Your task to perform on an android device: Open settings Image 0: 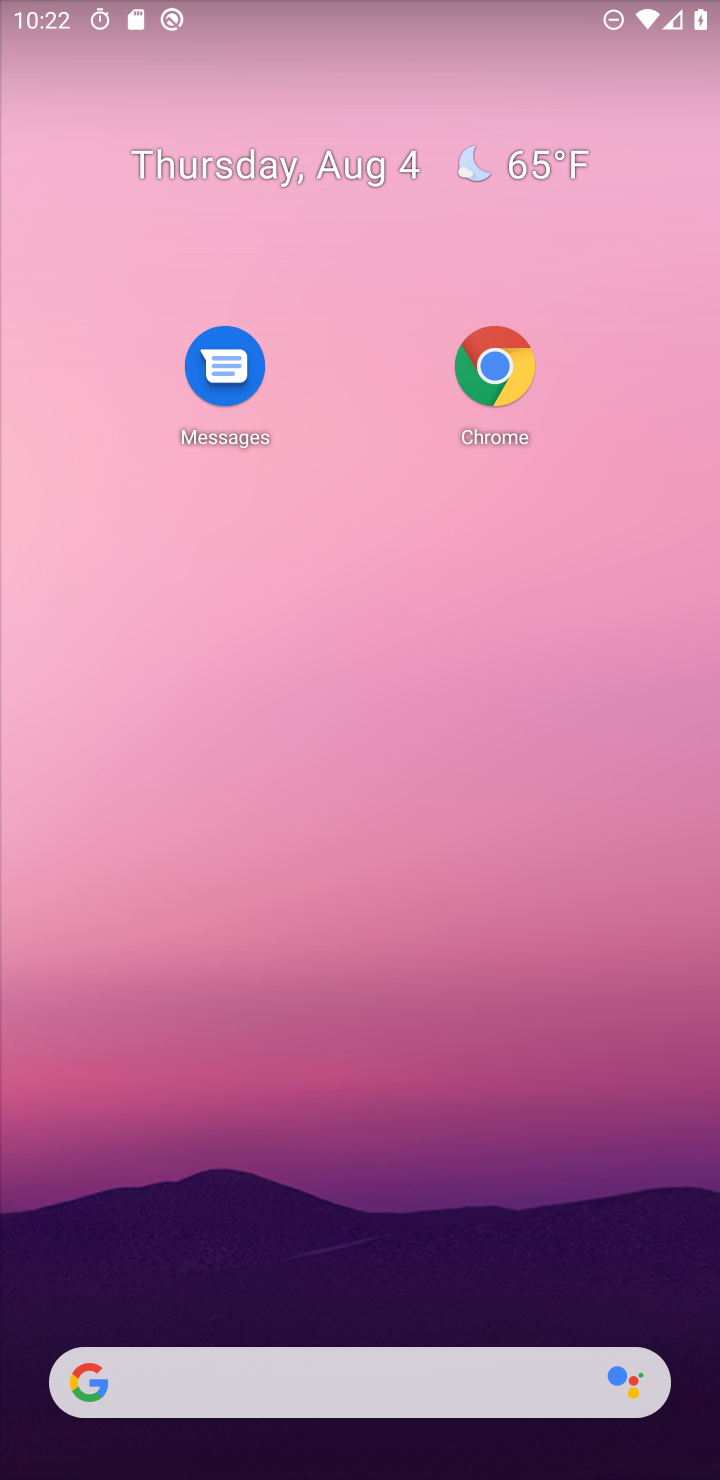
Step 0: press home button
Your task to perform on an android device: Open settings Image 1: 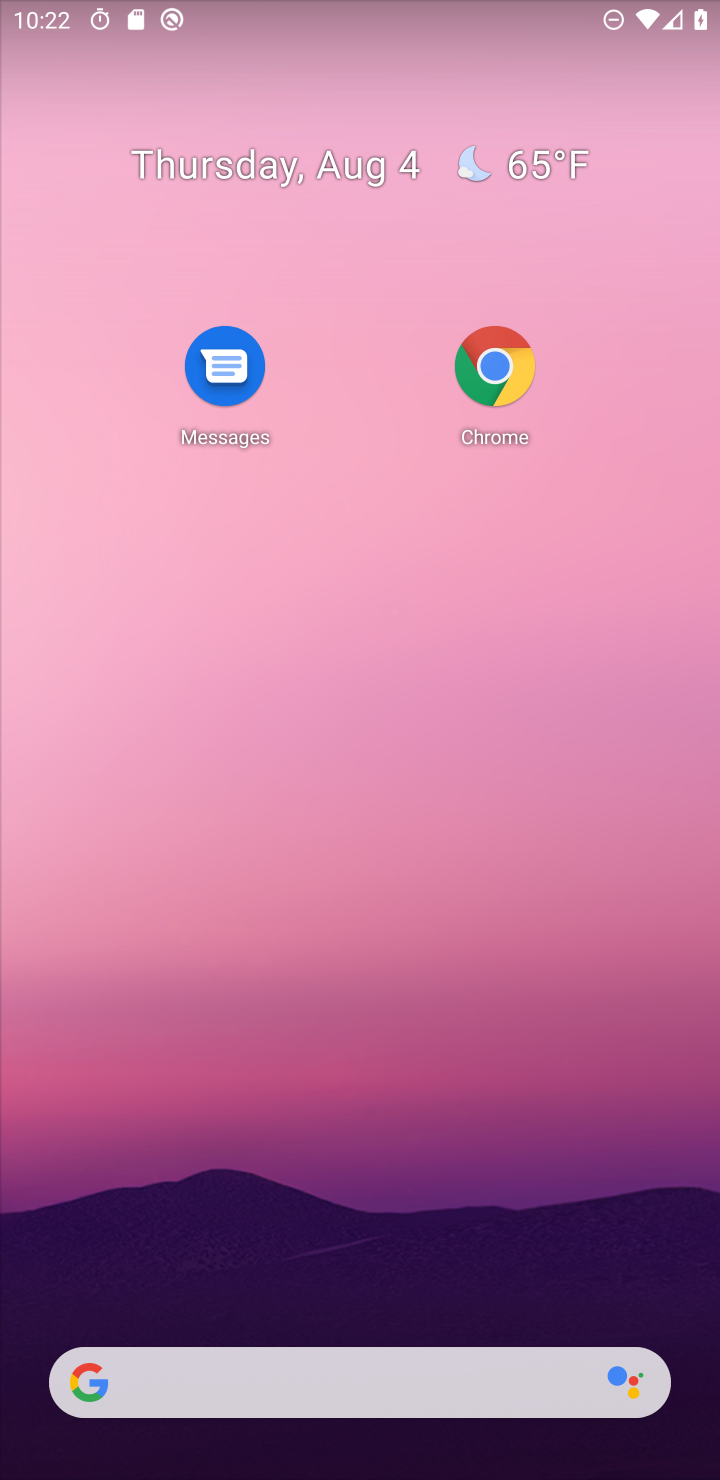
Step 1: click (439, 249)
Your task to perform on an android device: Open settings Image 2: 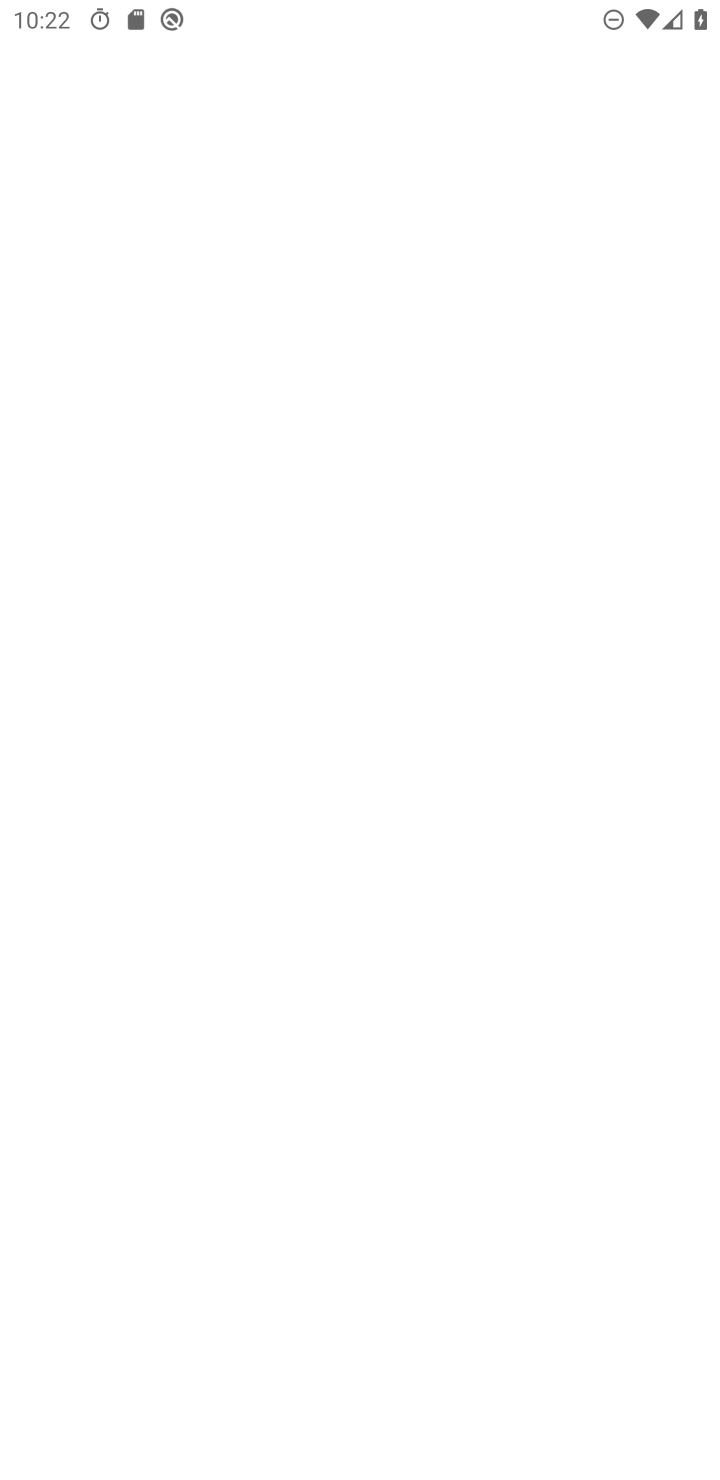
Step 2: click (410, 173)
Your task to perform on an android device: Open settings Image 3: 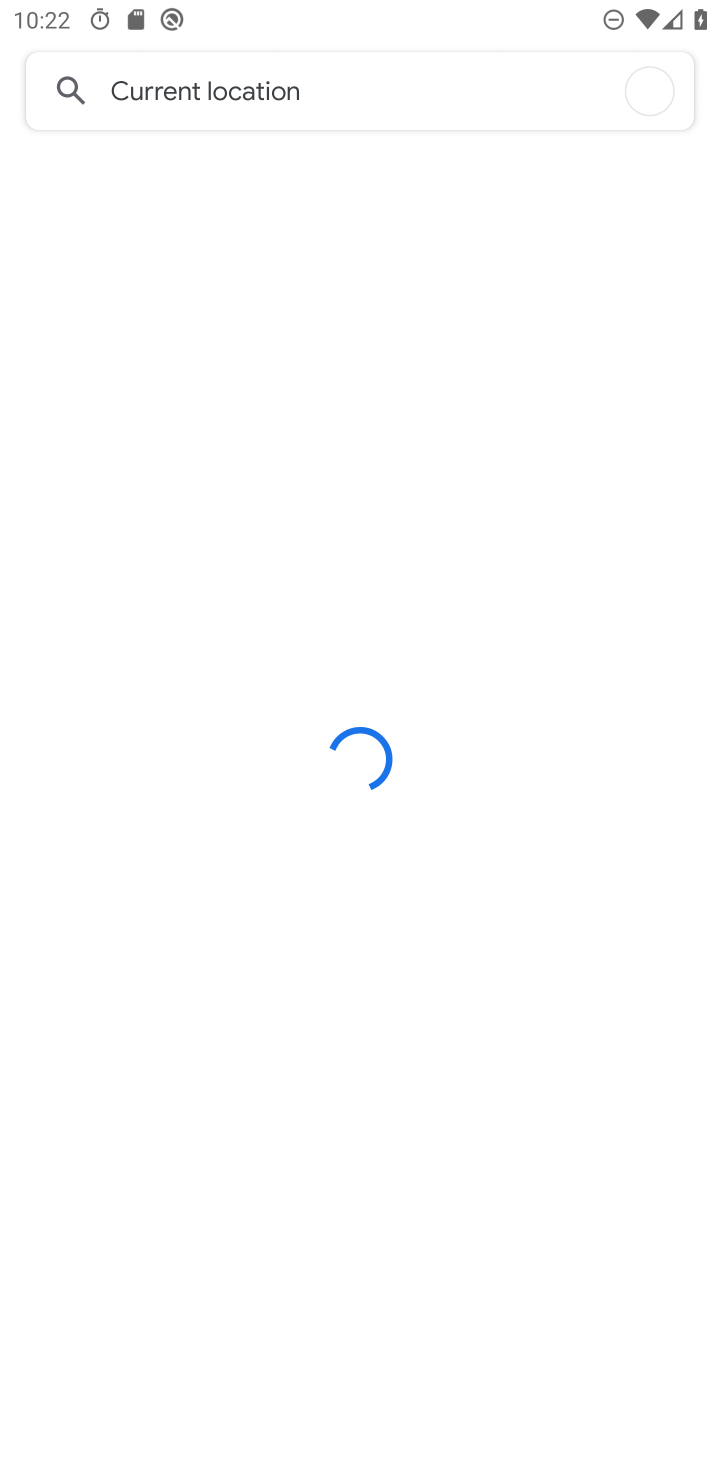
Step 3: press home button
Your task to perform on an android device: Open settings Image 4: 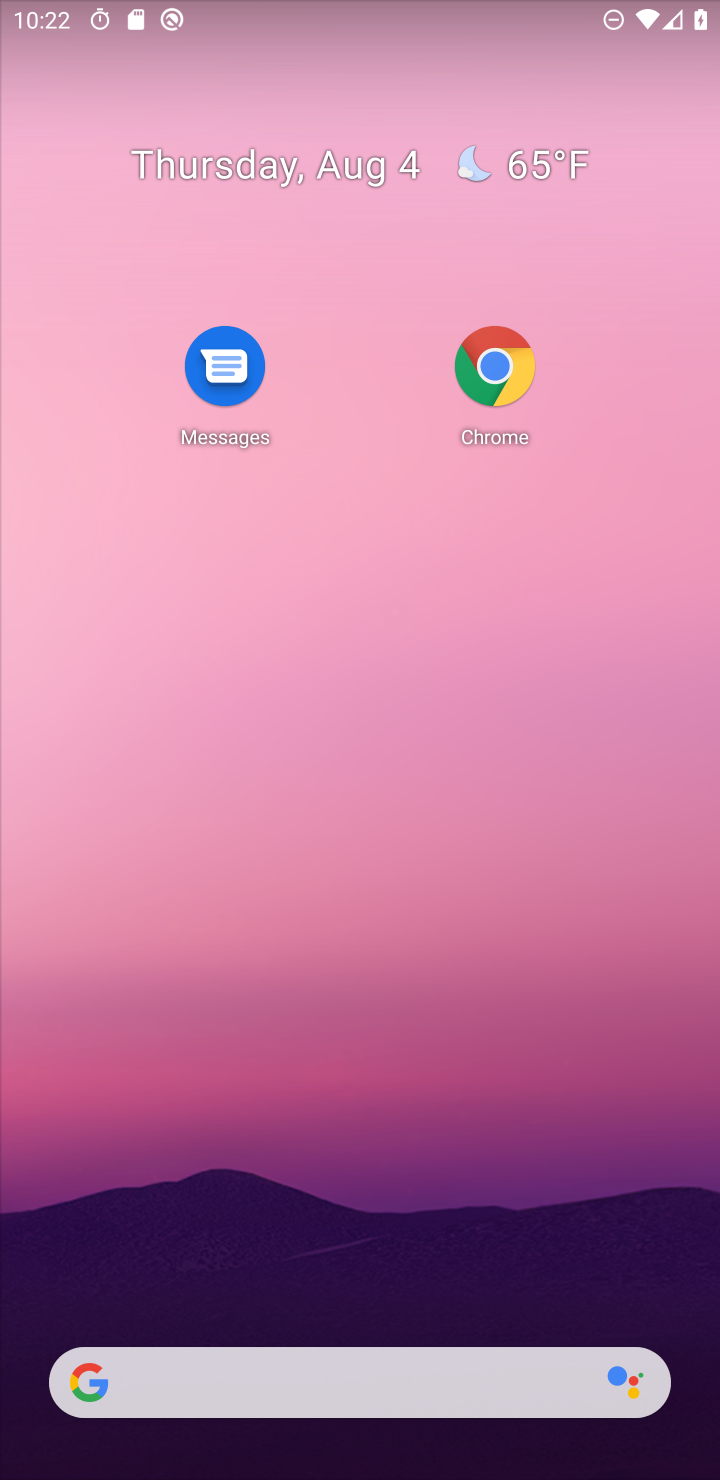
Step 4: drag from (420, 1302) to (418, 104)
Your task to perform on an android device: Open settings Image 5: 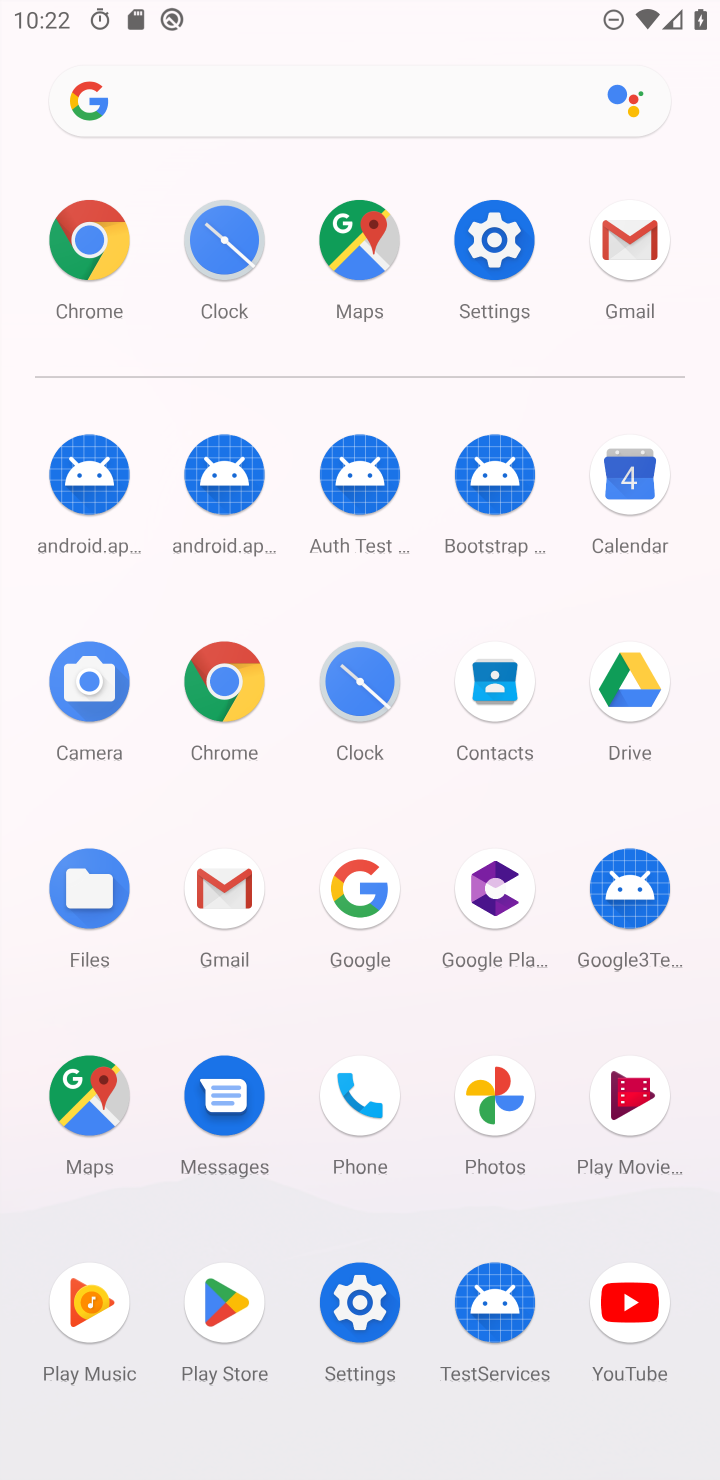
Step 5: click (492, 276)
Your task to perform on an android device: Open settings Image 6: 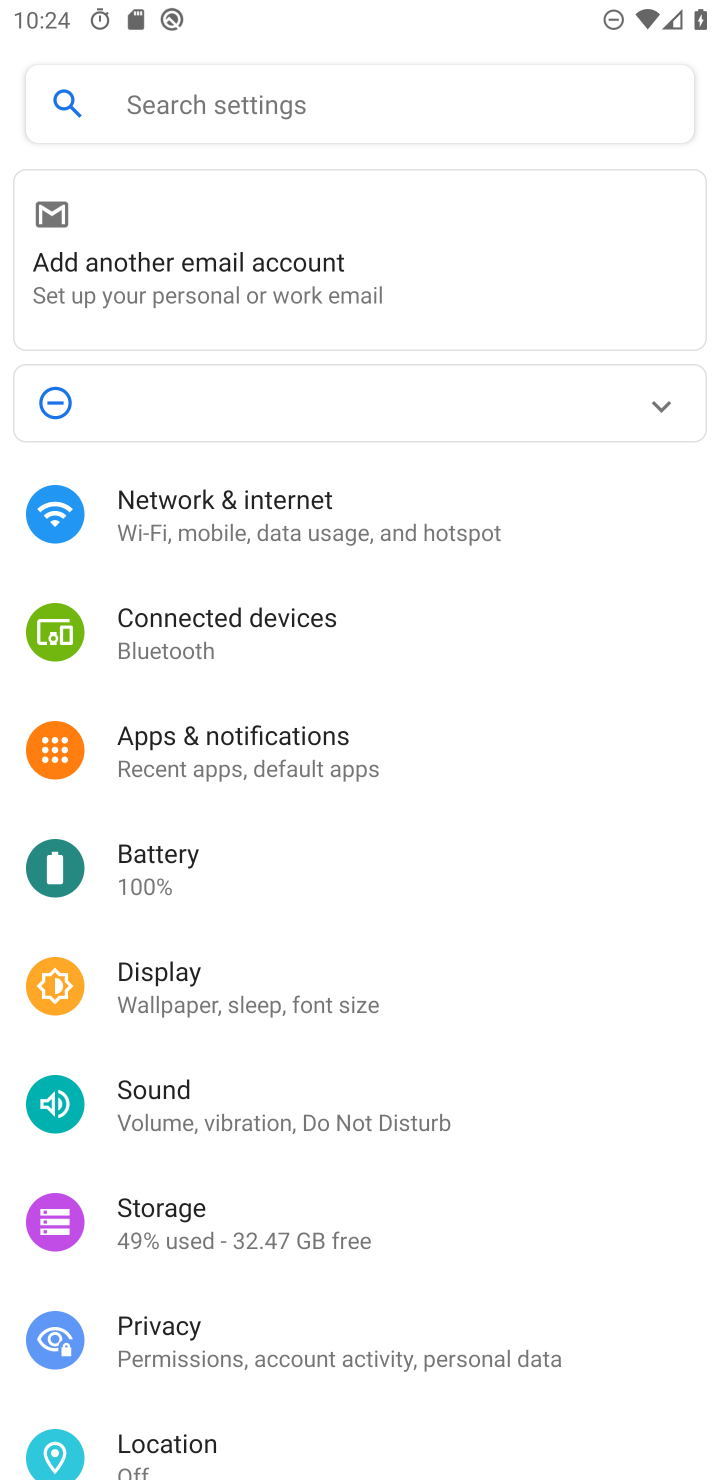
Step 6: task complete